Your task to perform on an android device: turn off picture-in-picture Image 0: 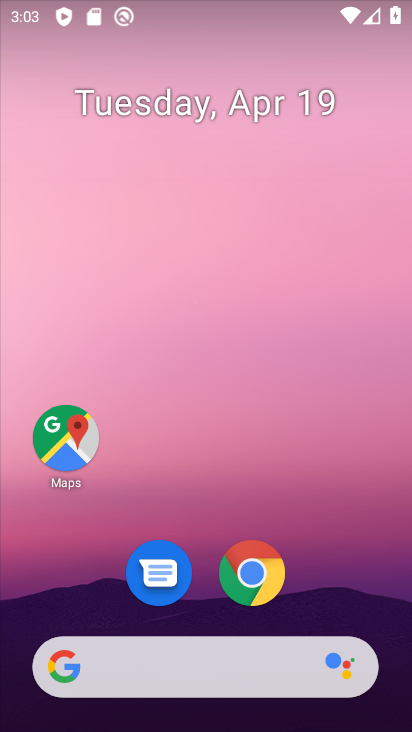
Step 0: drag from (369, 588) to (325, 288)
Your task to perform on an android device: turn off picture-in-picture Image 1: 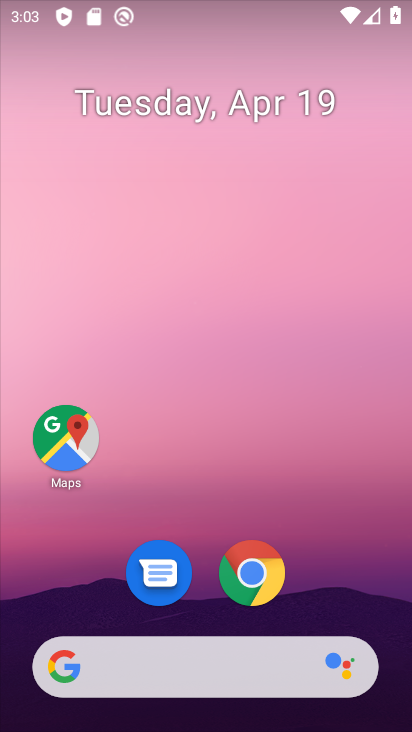
Step 1: drag from (300, 597) to (267, 105)
Your task to perform on an android device: turn off picture-in-picture Image 2: 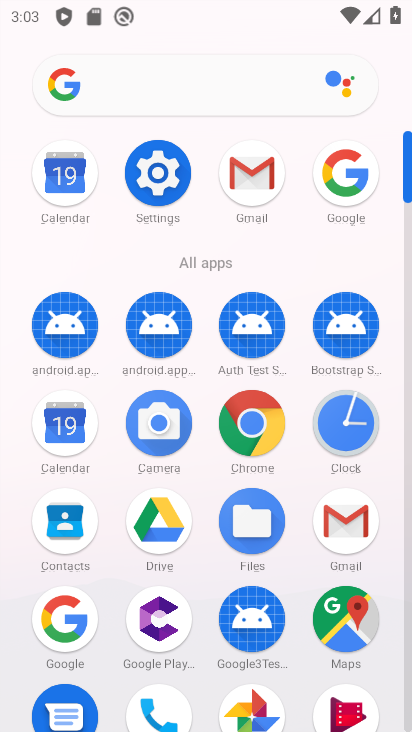
Step 2: drag from (208, 656) to (231, 270)
Your task to perform on an android device: turn off picture-in-picture Image 3: 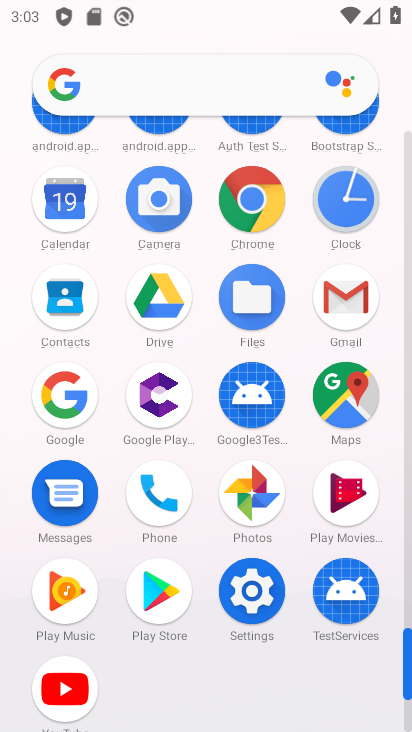
Step 3: click (226, 589)
Your task to perform on an android device: turn off picture-in-picture Image 4: 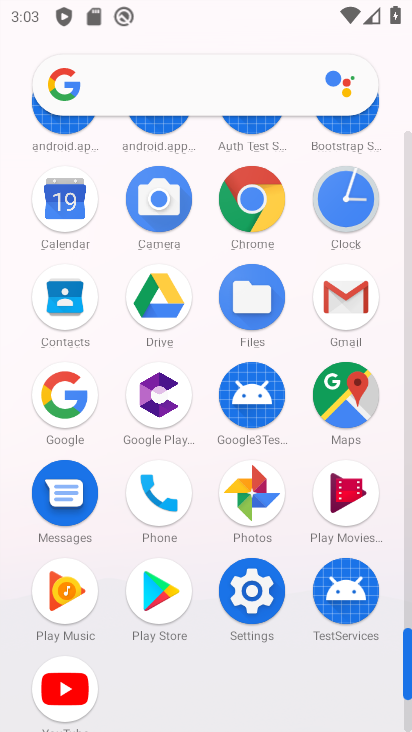
Step 4: click (226, 589)
Your task to perform on an android device: turn off picture-in-picture Image 5: 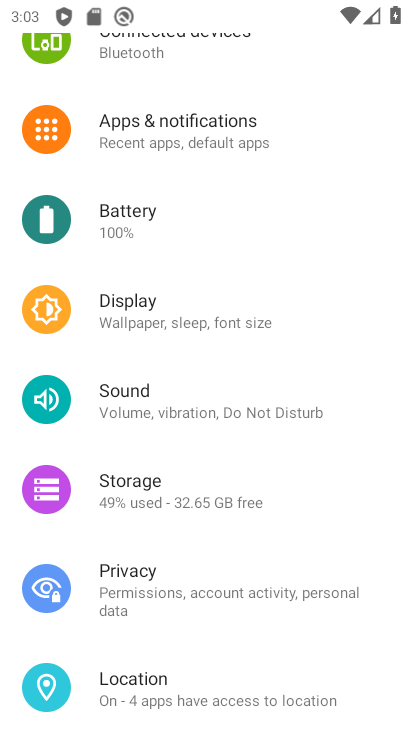
Step 5: drag from (313, 263) to (348, 272)
Your task to perform on an android device: turn off picture-in-picture Image 6: 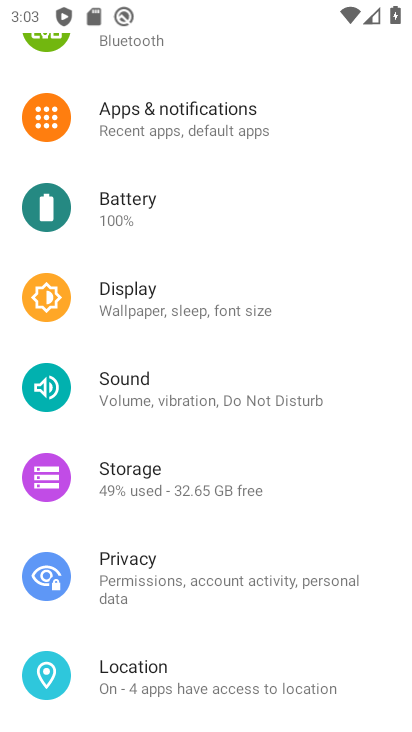
Step 6: drag from (325, 644) to (334, 246)
Your task to perform on an android device: turn off picture-in-picture Image 7: 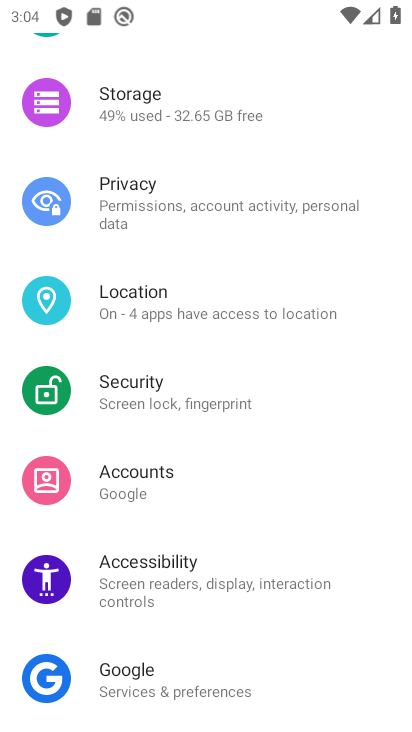
Step 7: drag from (323, 483) to (293, 729)
Your task to perform on an android device: turn off picture-in-picture Image 8: 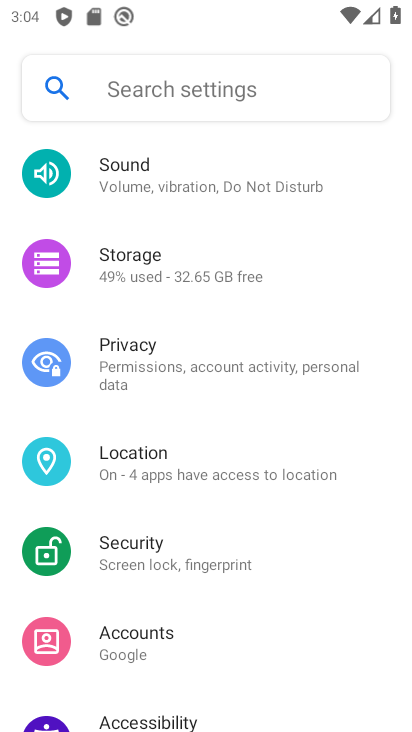
Step 8: drag from (322, 190) to (311, 662)
Your task to perform on an android device: turn off picture-in-picture Image 9: 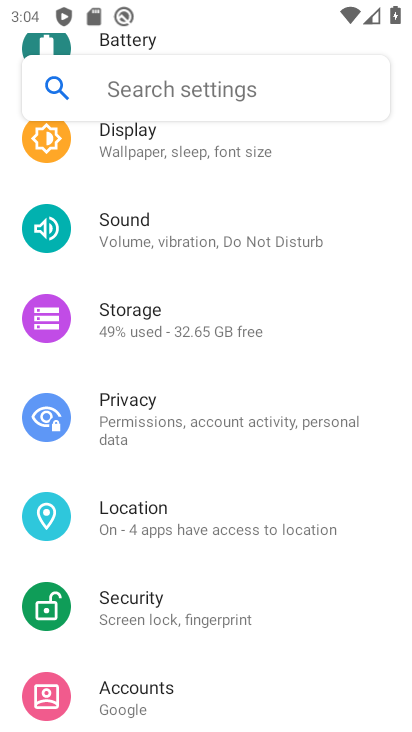
Step 9: drag from (301, 230) to (315, 502)
Your task to perform on an android device: turn off picture-in-picture Image 10: 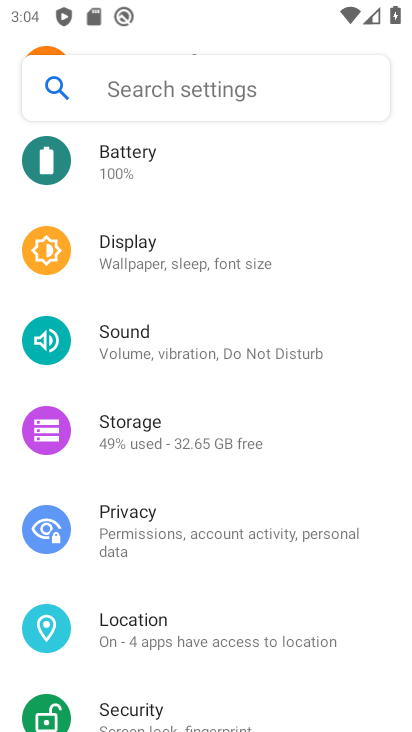
Step 10: drag from (318, 293) to (299, 560)
Your task to perform on an android device: turn off picture-in-picture Image 11: 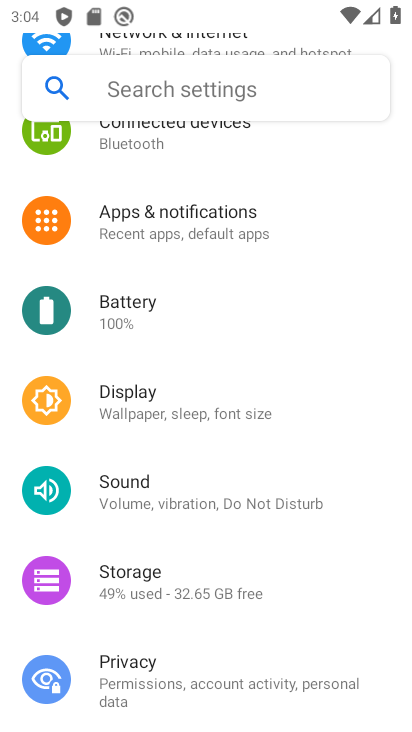
Step 11: click (259, 221)
Your task to perform on an android device: turn off picture-in-picture Image 12: 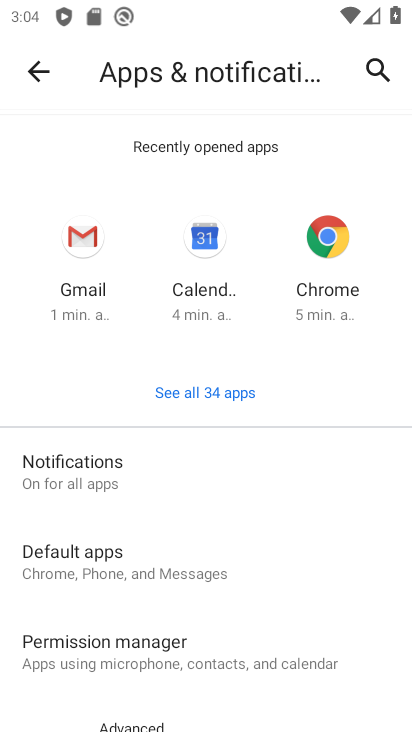
Step 12: drag from (242, 641) to (278, 343)
Your task to perform on an android device: turn off picture-in-picture Image 13: 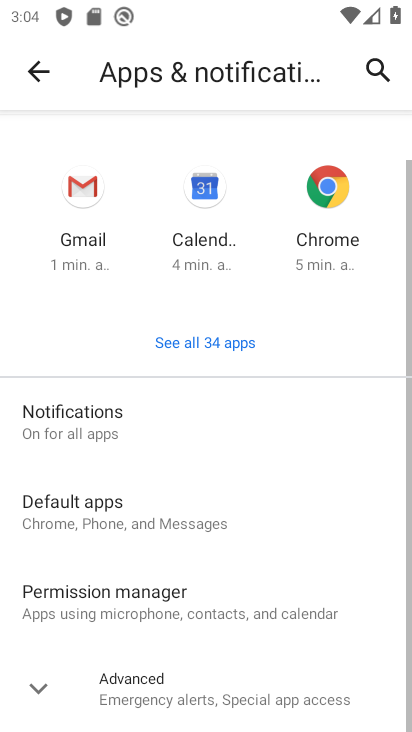
Step 13: click (40, 692)
Your task to perform on an android device: turn off picture-in-picture Image 14: 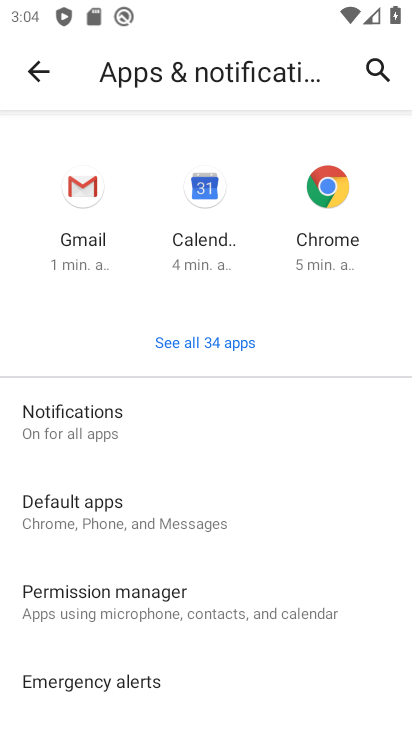
Step 14: drag from (197, 638) to (248, 285)
Your task to perform on an android device: turn off picture-in-picture Image 15: 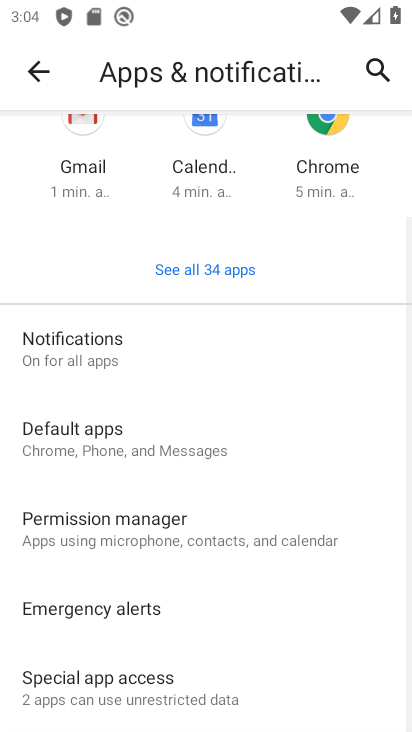
Step 15: click (124, 697)
Your task to perform on an android device: turn off picture-in-picture Image 16: 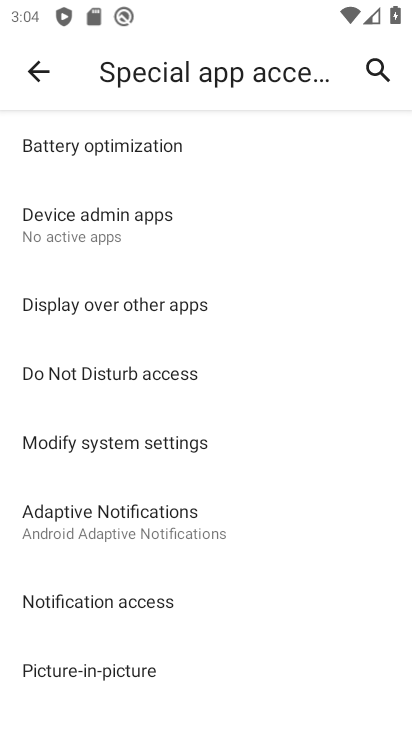
Step 16: click (123, 673)
Your task to perform on an android device: turn off picture-in-picture Image 17: 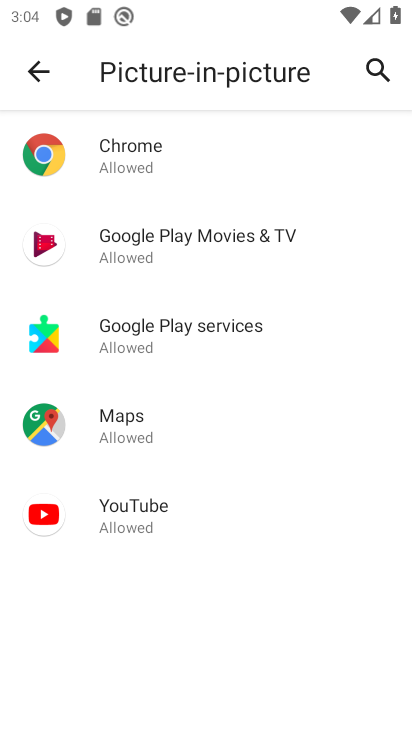
Step 17: click (291, 162)
Your task to perform on an android device: turn off picture-in-picture Image 18: 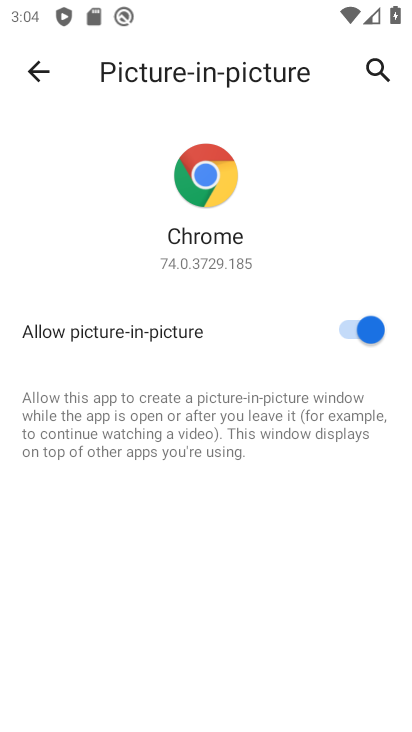
Step 18: click (354, 319)
Your task to perform on an android device: turn off picture-in-picture Image 19: 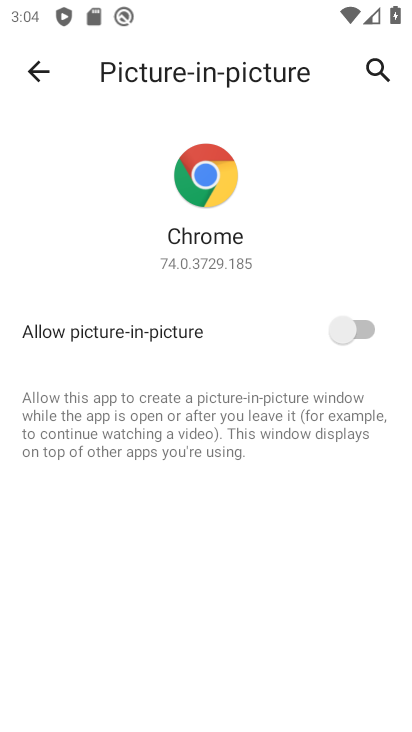
Step 19: task complete